Your task to perform on an android device: stop showing notifications on the lock screen Image 0: 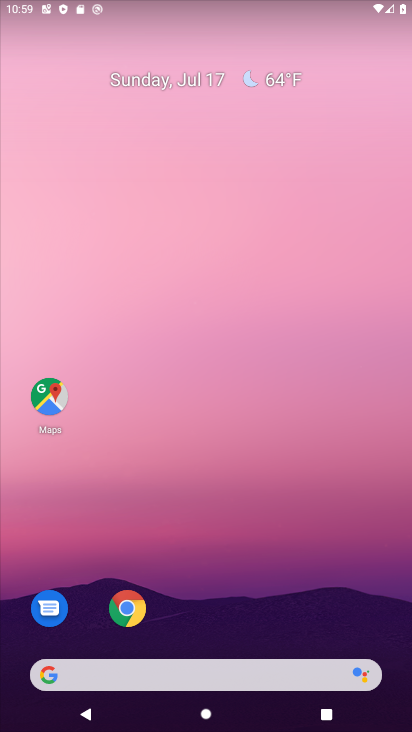
Step 0: drag from (364, 667) to (228, 59)
Your task to perform on an android device: stop showing notifications on the lock screen Image 1: 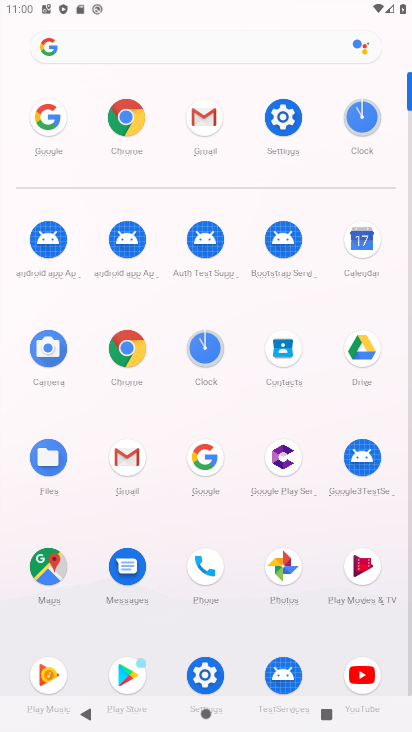
Step 1: click (285, 122)
Your task to perform on an android device: stop showing notifications on the lock screen Image 2: 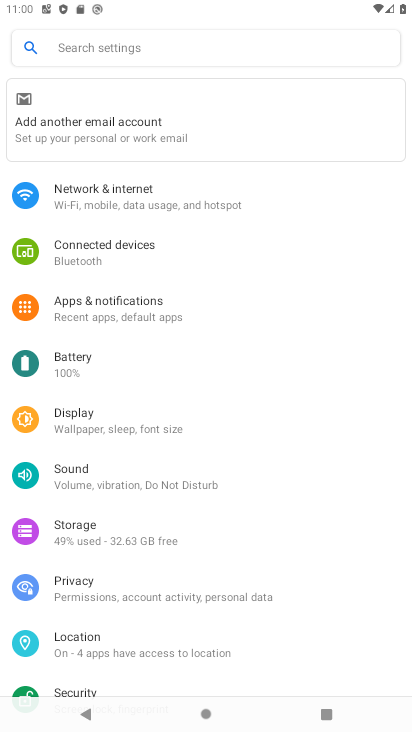
Step 2: click (133, 305)
Your task to perform on an android device: stop showing notifications on the lock screen Image 3: 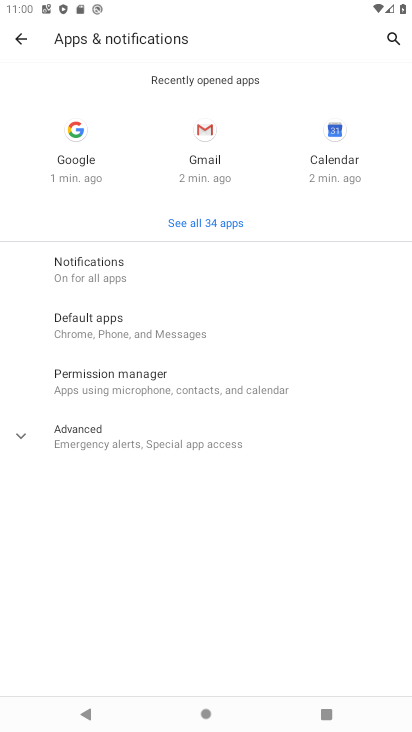
Step 3: click (124, 263)
Your task to perform on an android device: stop showing notifications on the lock screen Image 4: 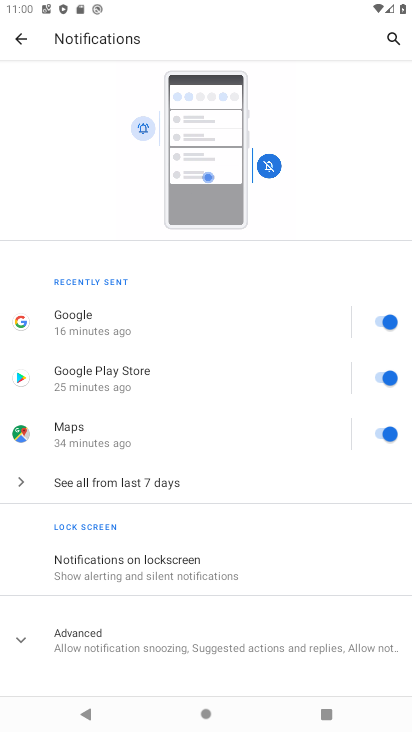
Step 4: click (246, 558)
Your task to perform on an android device: stop showing notifications on the lock screen Image 5: 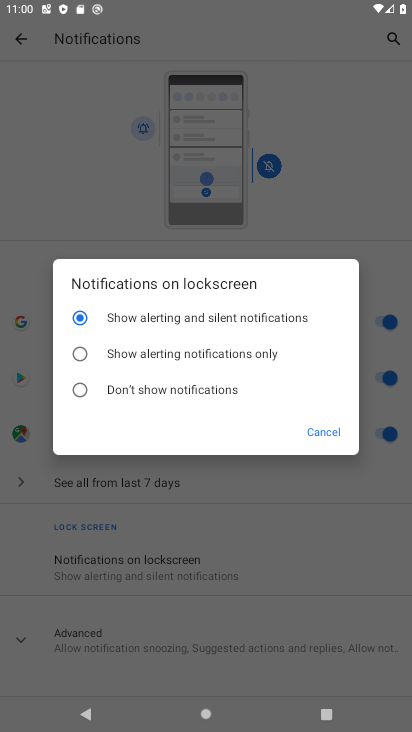
Step 5: click (116, 385)
Your task to perform on an android device: stop showing notifications on the lock screen Image 6: 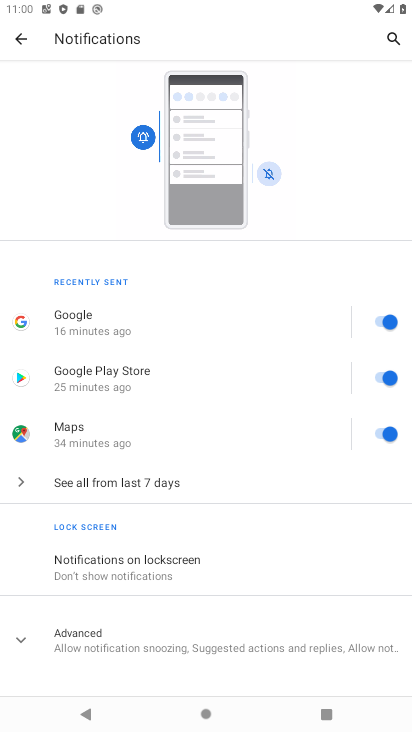
Step 6: task complete